Your task to perform on an android device: Search for seafood restaurants on Google Maps Image 0: 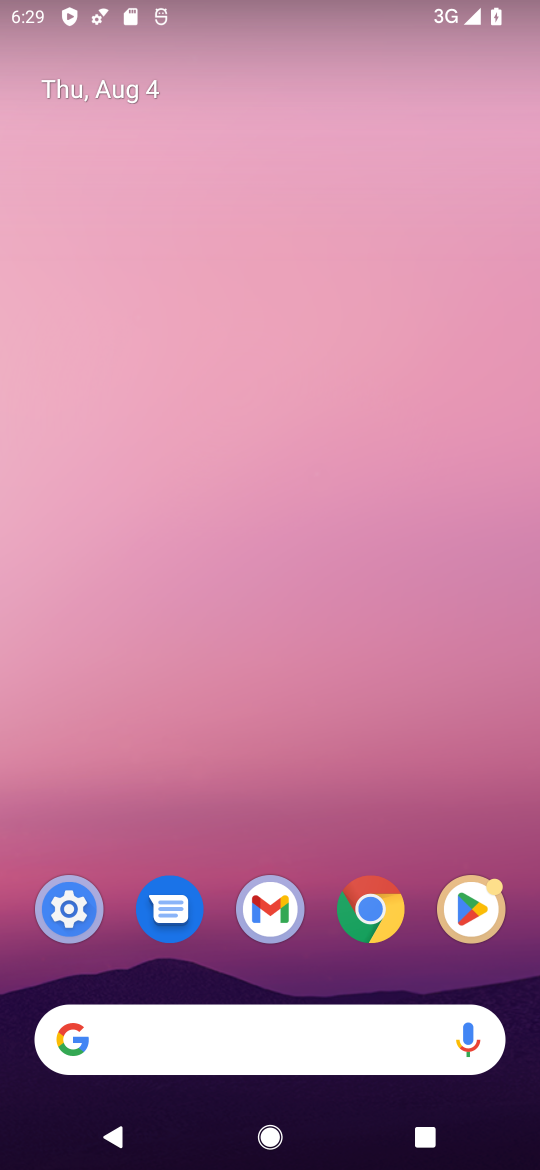
Step 0: drag from (315, 951) to (416, 118)
Your task to perform on an android device: Search for seafood restaurants on Google Maps Image 1: 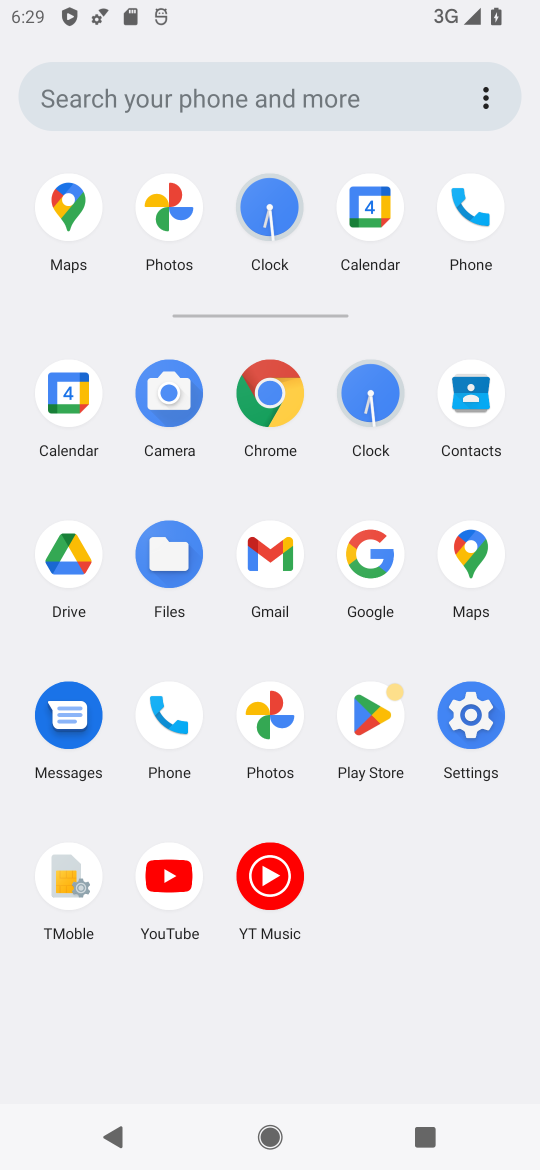
Step 1: click (470, 559)
Your task to perform on an android device: Search for seafood restaurants on Google Maps Image 2: 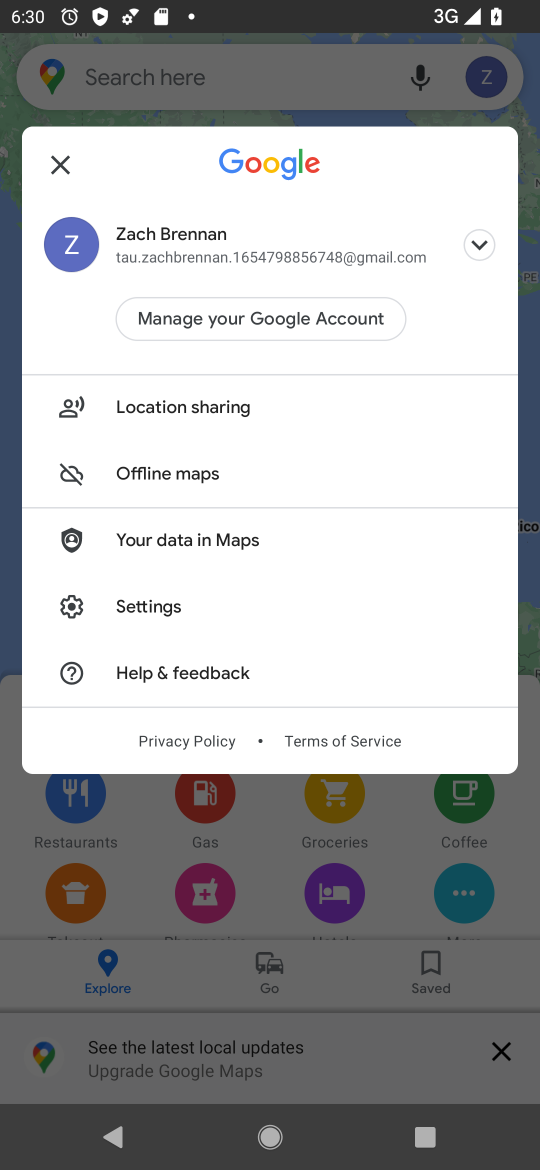
Step 2: click (56, 155)
Your task to perform on an android device: Search for seafood restaurants on Google Maps Image 3: 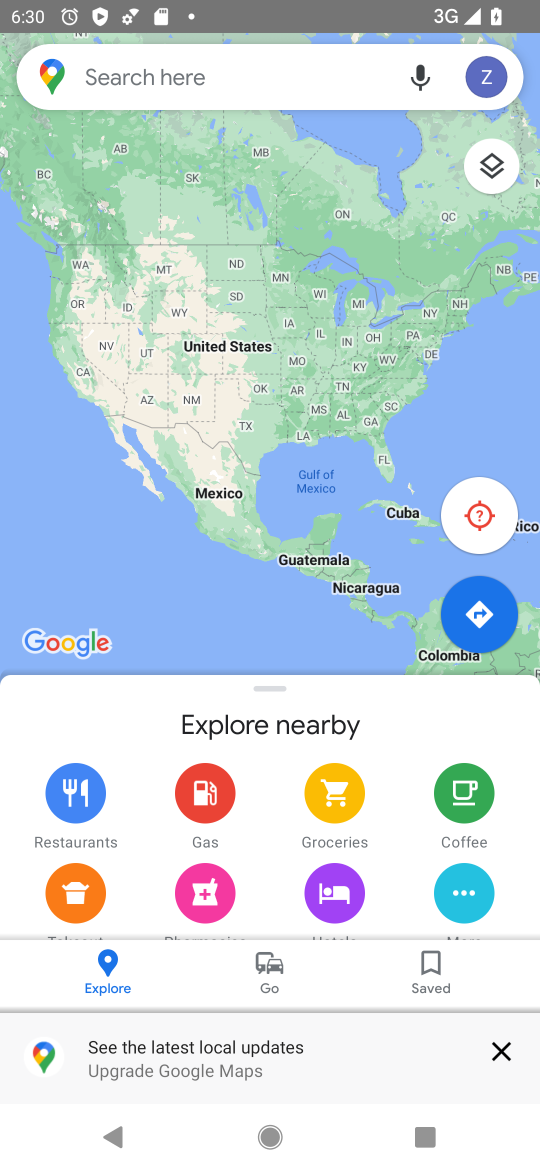
Step 3: click (116, 93)
Your task to perform on an android device: Search for seafood restaurants on Google Maps Image 4: 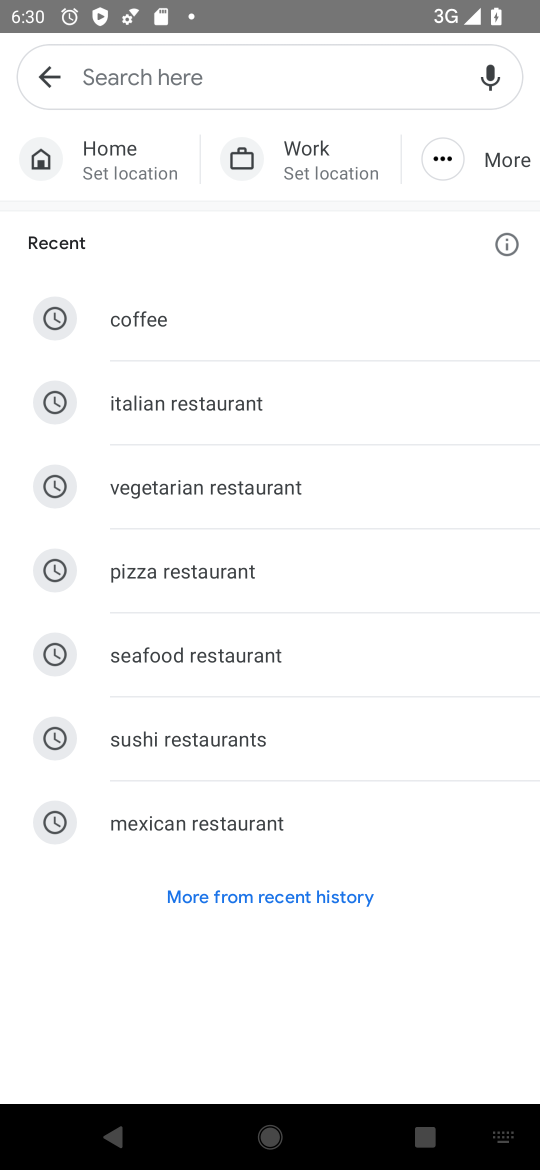
Step 4: click (202, 656)
Your task to perform on an android device: Search for seafood restaurants on Google Maps Image 5: 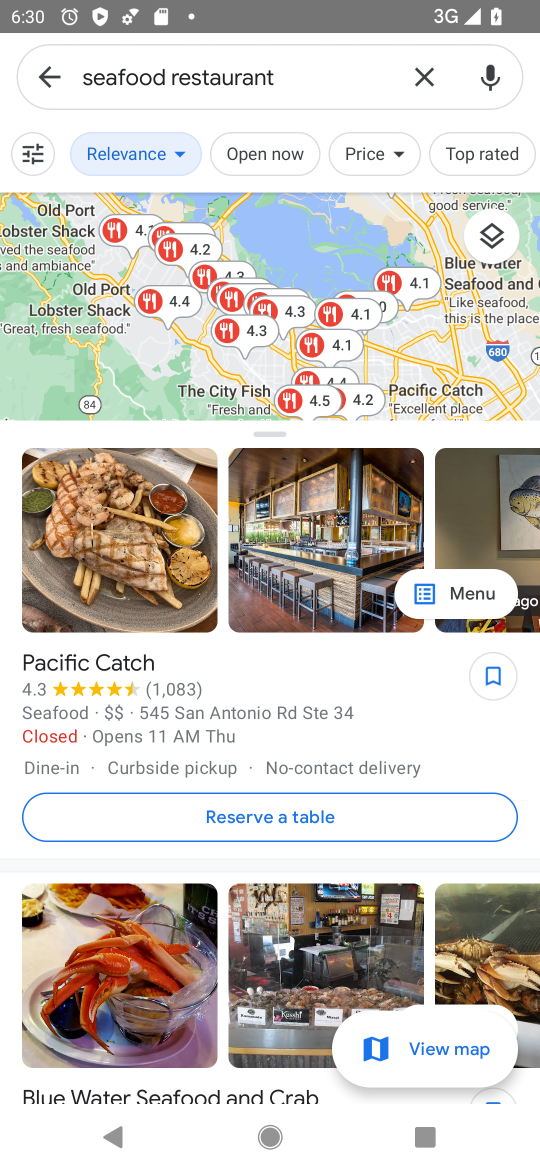
Step 5: task complete